Your task to perform on an android device: Show me popular videos on Youtube Image 0: 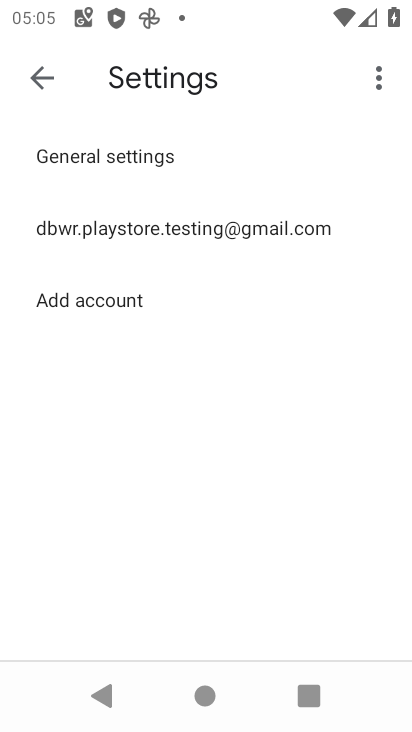
Step 0: press home button
Your task to perform on an android device: Show me popular videos on Youtube Image 1: 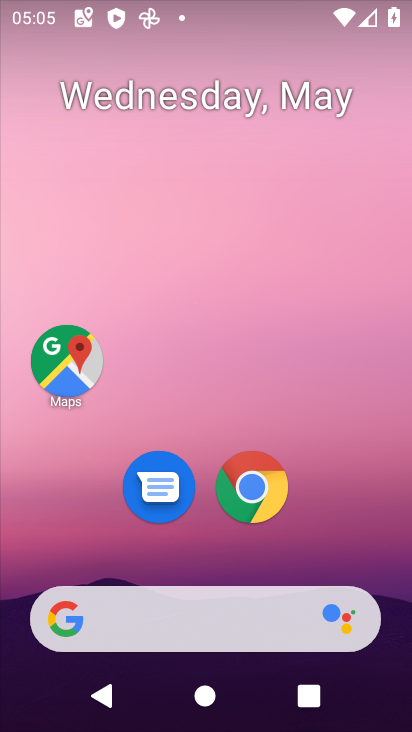
Step 1: drag from (346, 546) to (263, 97)
Your task to perform on an android device: Show me popular videos on Youtube Image 2: 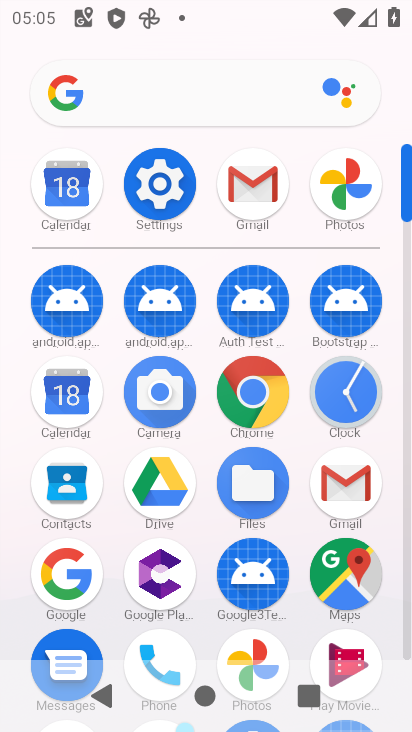
Step 2: click (408, 570)
Your task to perform on an android device: Show me popular videos on Youtube Image 3: 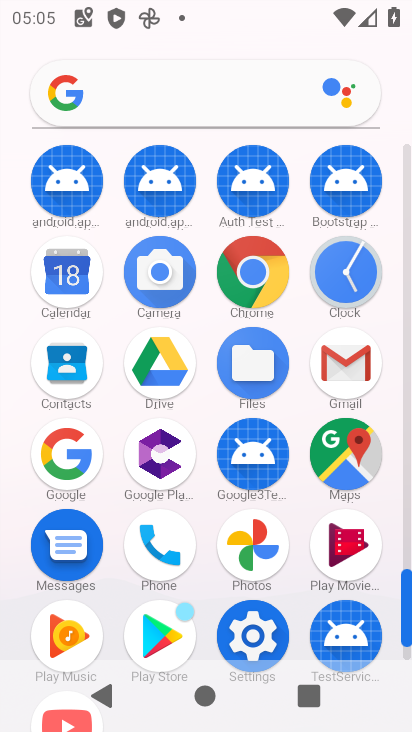
Step 3: click (404, 656)
Your task to perform on an android device: Show me popular videos on Youtube Image 4: 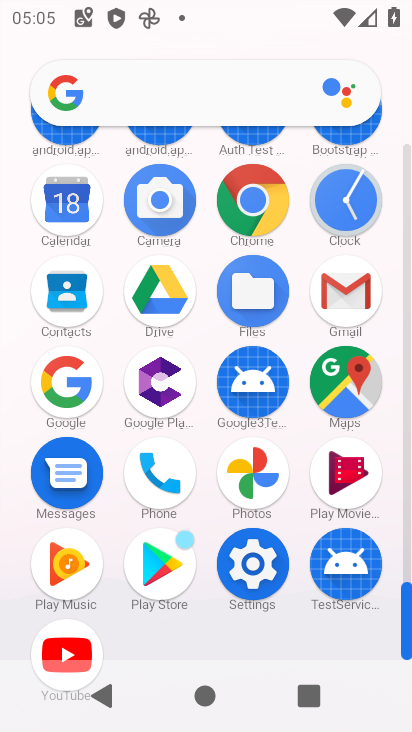
Step 4: click (53, 643)
Your task to perform on an android device: Show me popular videos on Youtube Image 5: 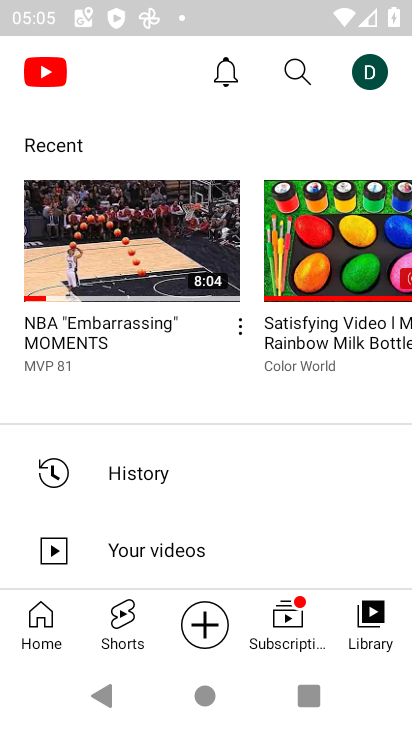
Step 5: click (31, 624)
Your task to perform on an android device: Show me popular videos on Youtube Image 6: 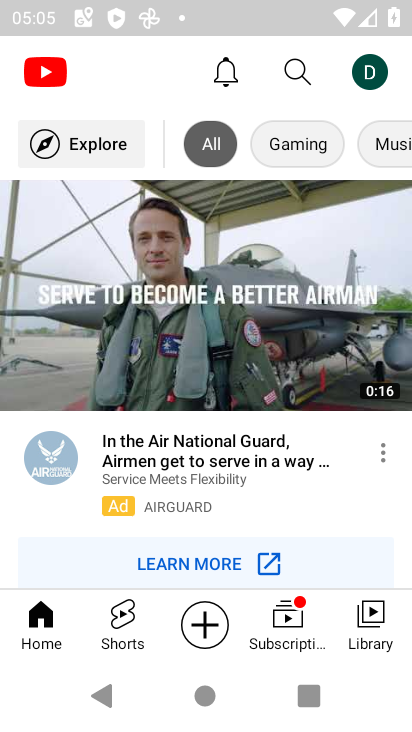
Step 6: task complete